Your task to perform on an android device: open wifi settings Image 0: 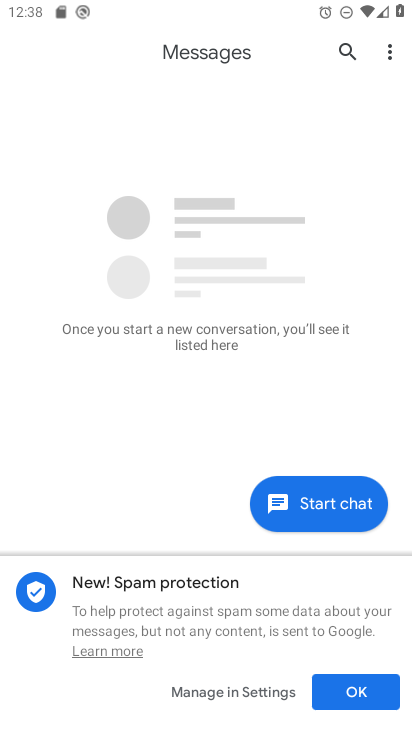
Step 0: press home button
Your task to perform on an android device: open wifi settings Image 1: 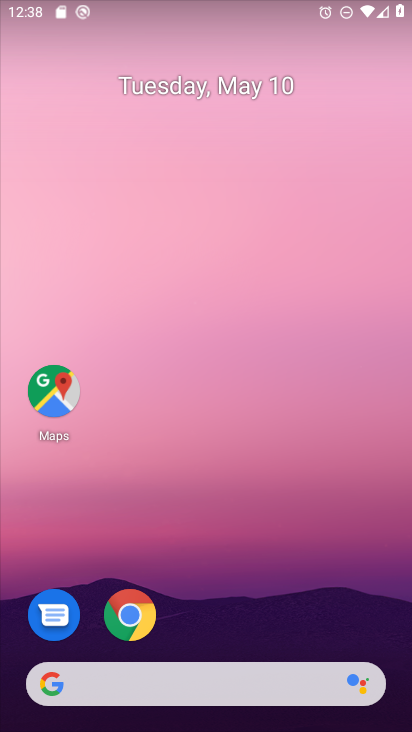
Step 1: drag from (190, 712) to (264, 93)
Your task to perform on an android device: open wifi settings Image 2: 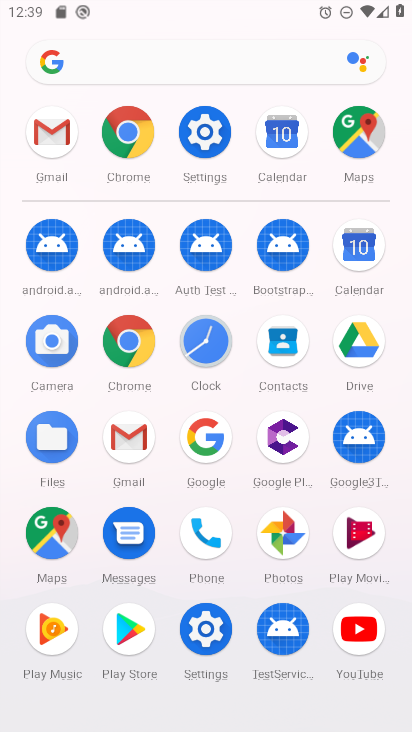
Step 2: click (204, 630)
Your task to perform on an android device: open wifi settings Image 3: 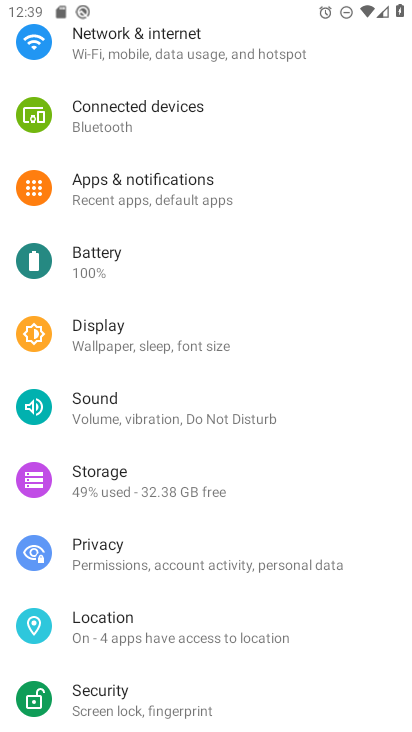
Step 3: click (174, 47)
Your task to perform on an android device: open wifi settings Image 4: 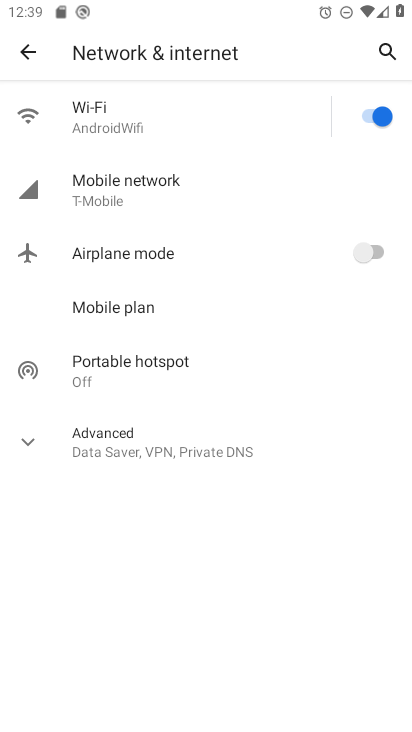
Step 4: click (123, 115)
Your task to perform on an android device: open wifi settings Image 5: 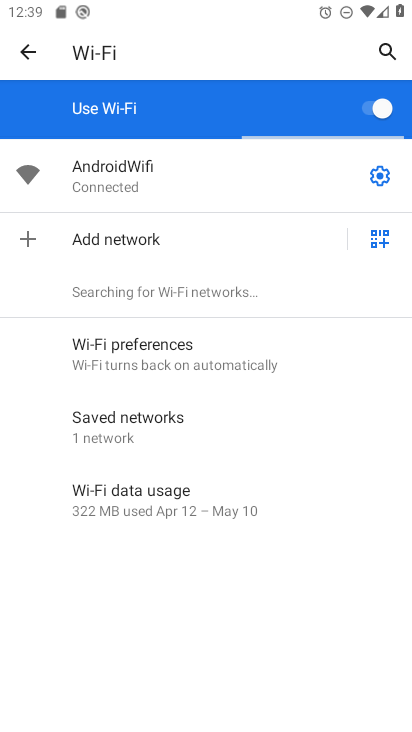
Step 5: task complete